Your task to perform on an android device: Open Android settings Image 0: 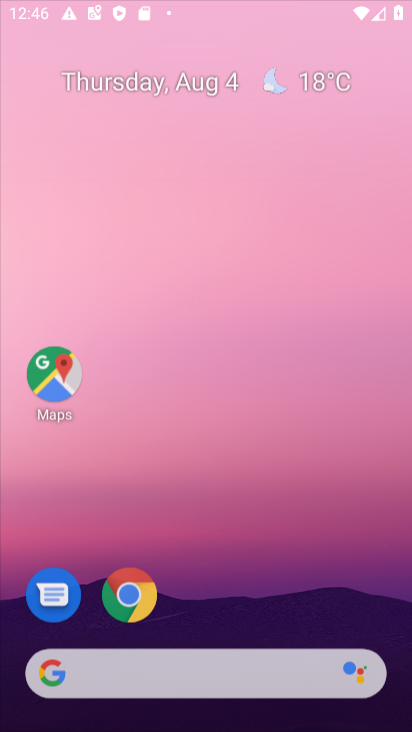
Step 0: press home button
Your task to perform on an android device: Open Android settings Image 1: 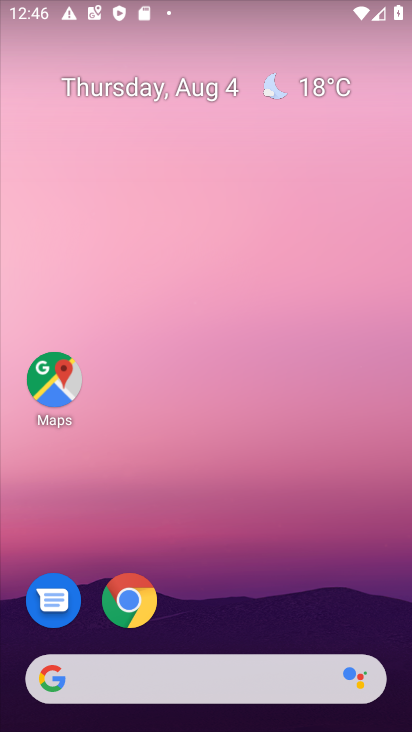
Step 1: drag from (185, 669) to (357, 79)
Your task to perform on an android device: Open Android settings Image 2: 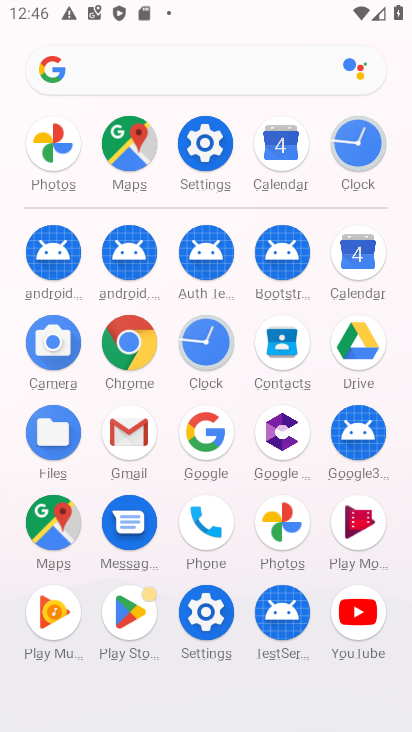
Step 2: click (206, 148)
Your task to perform on an android device: Open Android settings Image 3: 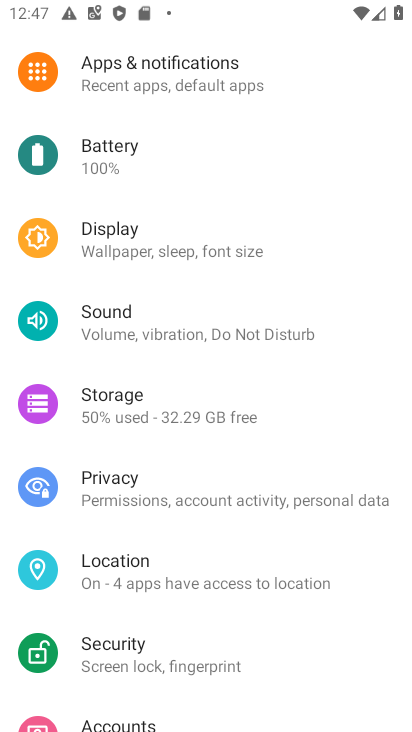
Step 3: task complete